Your task to perform on an android device: clear history in the chrome app Image 0: 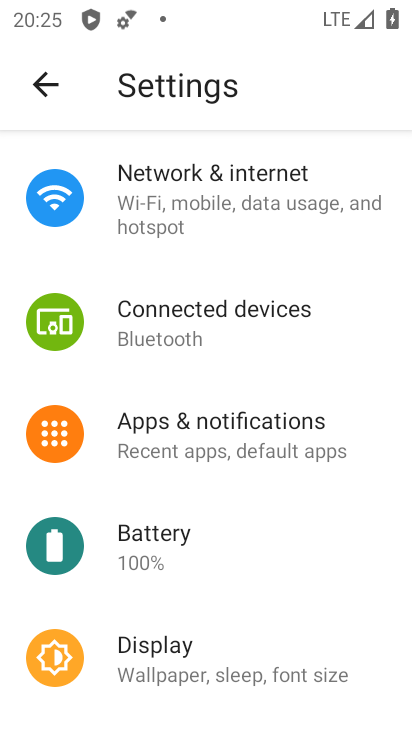
Step 0: press home button
Your task to perform on an android device: clear history in the chrome app Image 1: 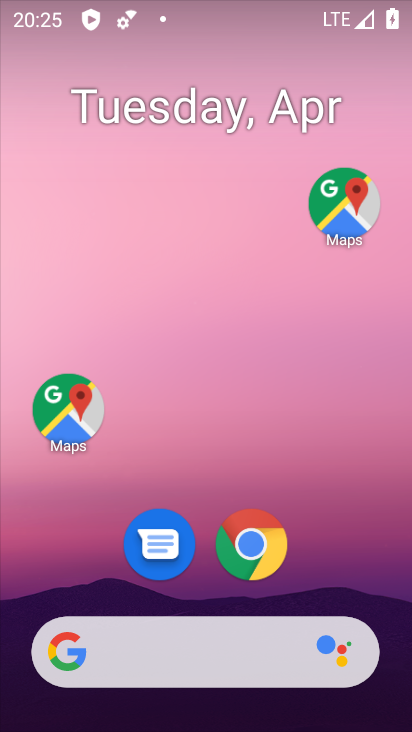
Step 1: drag from (177, 596) to (337, 18)
Your task to perform on an android device: clear history in the chrome app Image 2: 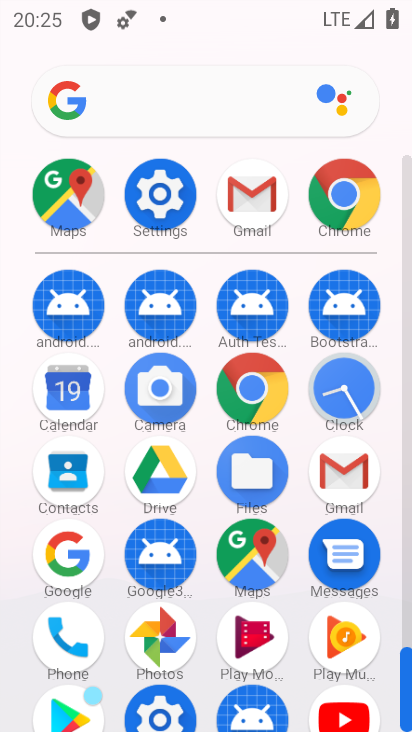
Step 2: click (354, 207)
Your task to perform on an android device: clear history in the chrome app Image 3: 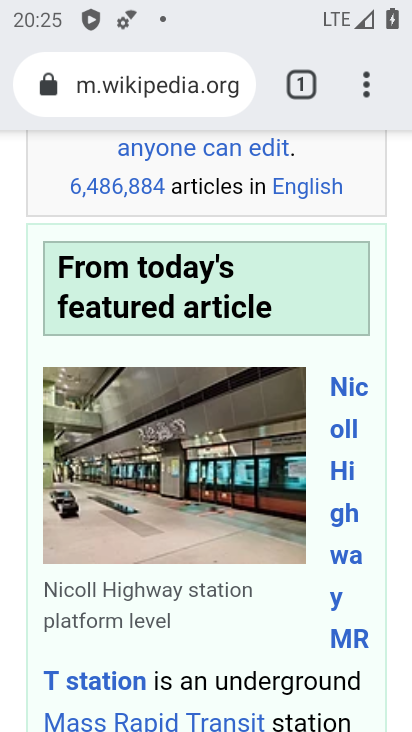
Step 3: click (366, 83)
Your task to perform on an android device: clear history in the chrome app Image 4: 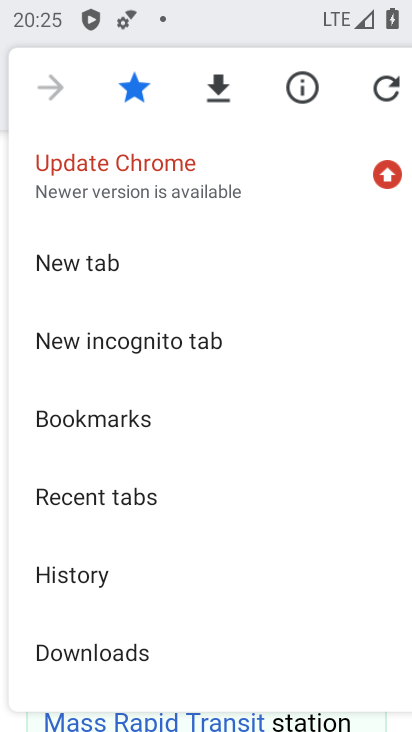
Step 4: click (92, 576)
Your task to perform on an android device: clear history in the chrome app Image 5: 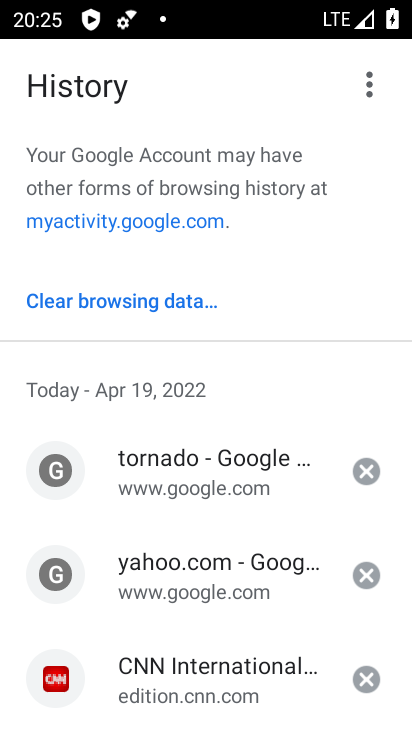
Step 5: click (167, 296)
Your task to perform on an android device: clear history in the chrome app Image 6: 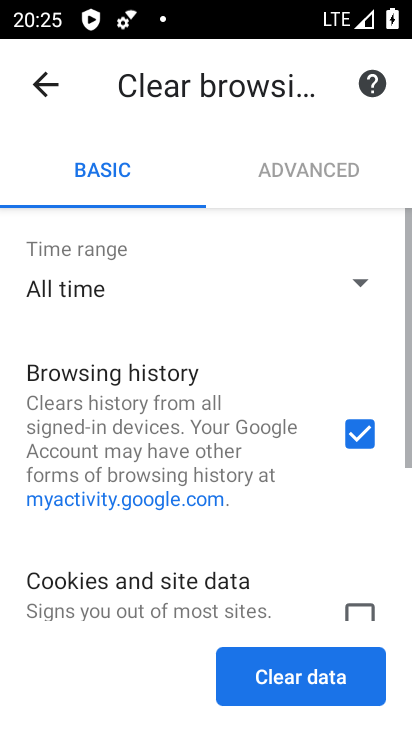
Step 6: drag from (267, 523) to (359, 238)
Your task to perform on an android device: clear history in the chrome app Image 7: 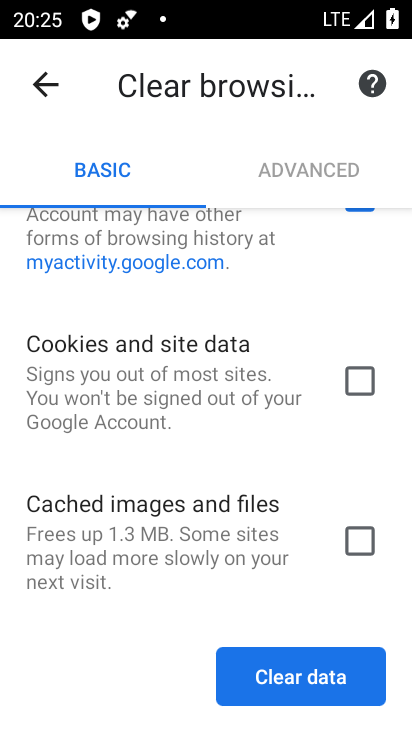
Step 7: click (364, 381)
Your task to perform on an android device: clear history in the chrome app Image 8: 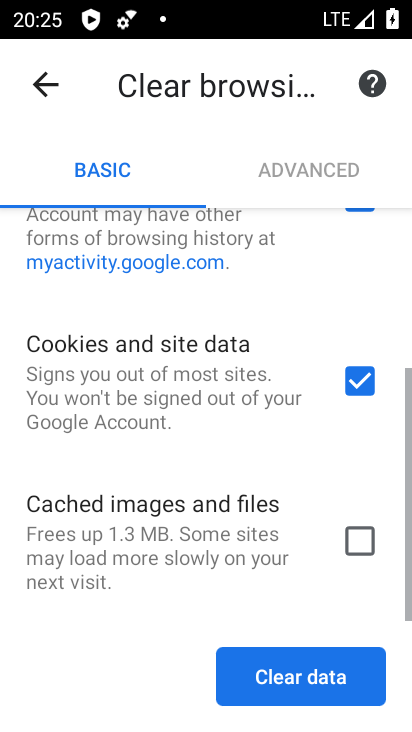
Step 8: click (364, 544)
Your task to perform on an android device: clear history in the chrome app Image 9: 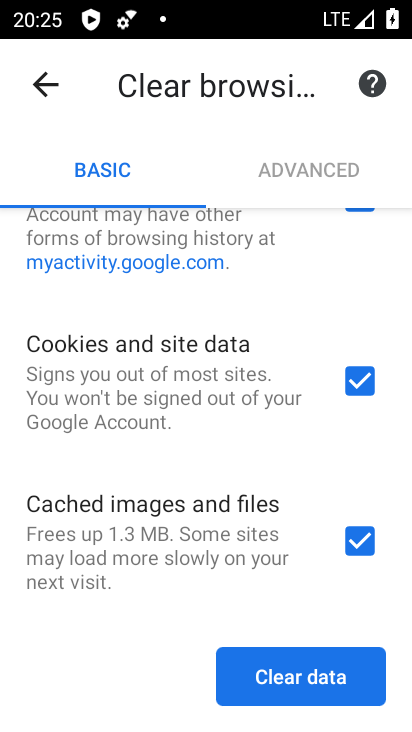
Step 9: click (288, 672)
Your task to perform on an android device: clear history in the chrome app Image 10: 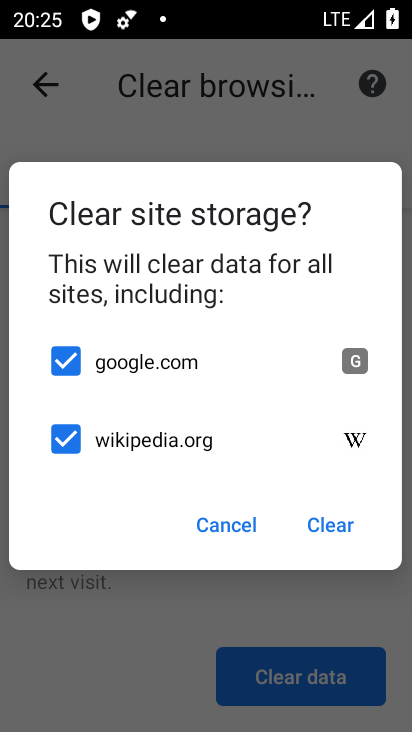
Step 10: click (341, 525)
Your task to perform on an android device: clear history in the chrome app Image 11: 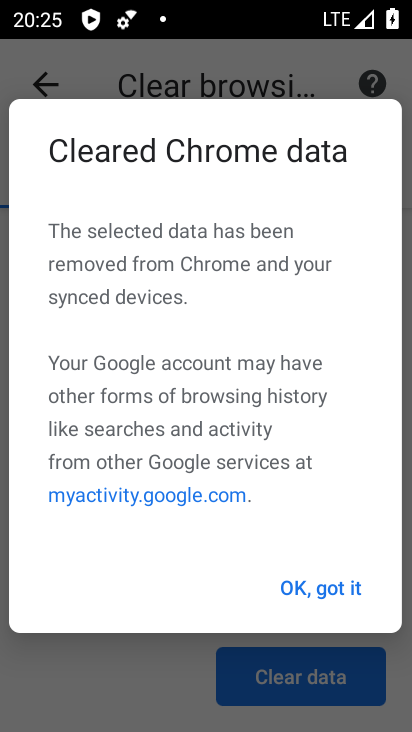
Step 11: click (354, 586)
Your task to perform on an android device: clear history in the chrome app Image 12: 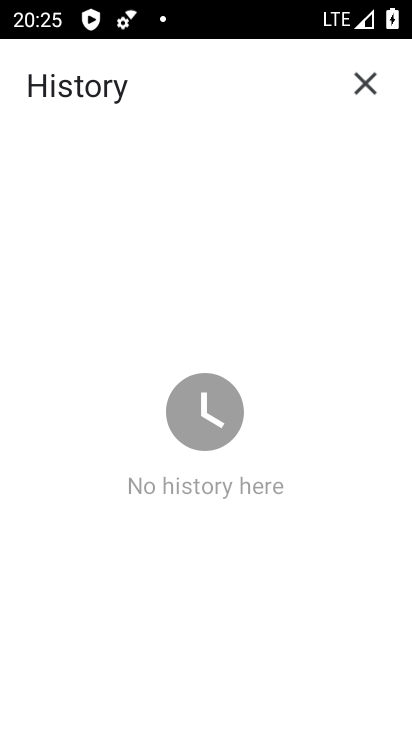
Step 12: task complete